Your task to perform on an android device: set an alarm Image 0: 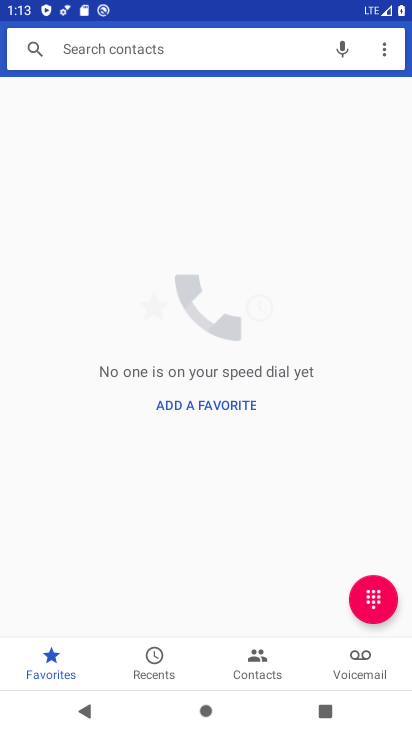
Step 0: press home button
Your task to perform on an android device: set an alarm Image 1: 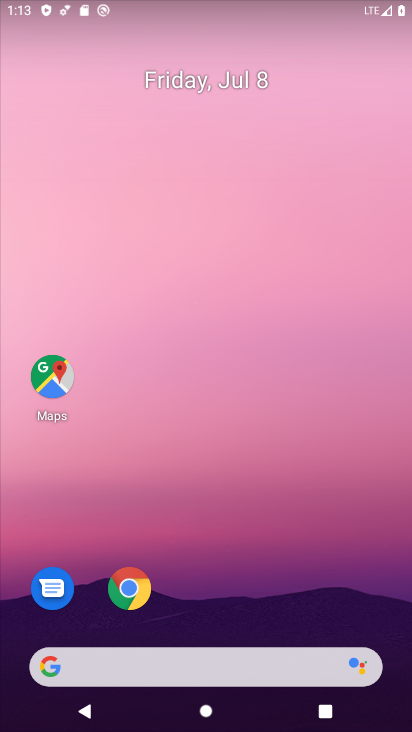
Step 1: drag from (235, 600) to (90, 0)
Your task to perform on an android device: set an alarm Image 2: 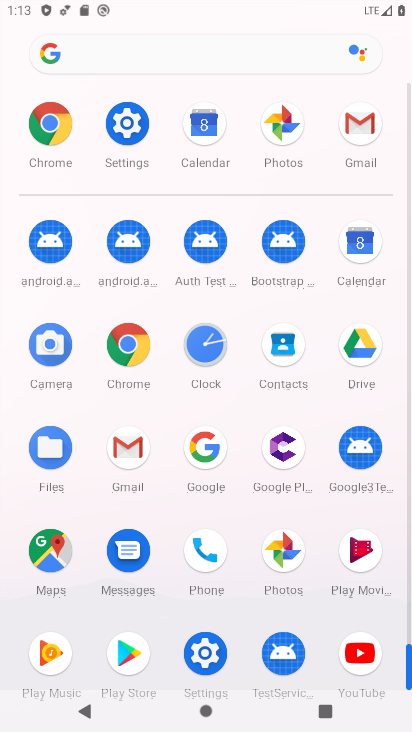
Step 2: click (207, 356)
Your task to perform on an android device: set an alarm Image 3: 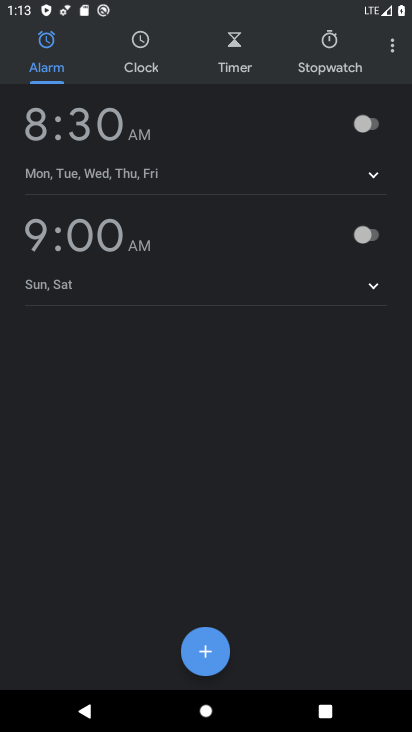
Step 3: click (375, 118)
Your task to perform on an android device: set an alarm Image 4: 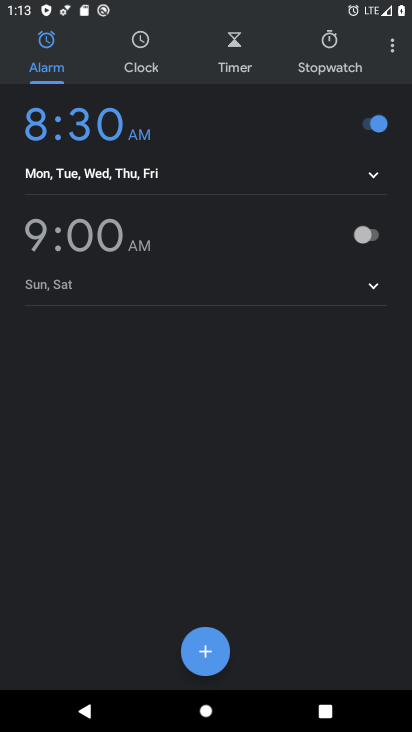
Step 4: task complete